Your task to perform on an android device: check google app version Image 0: 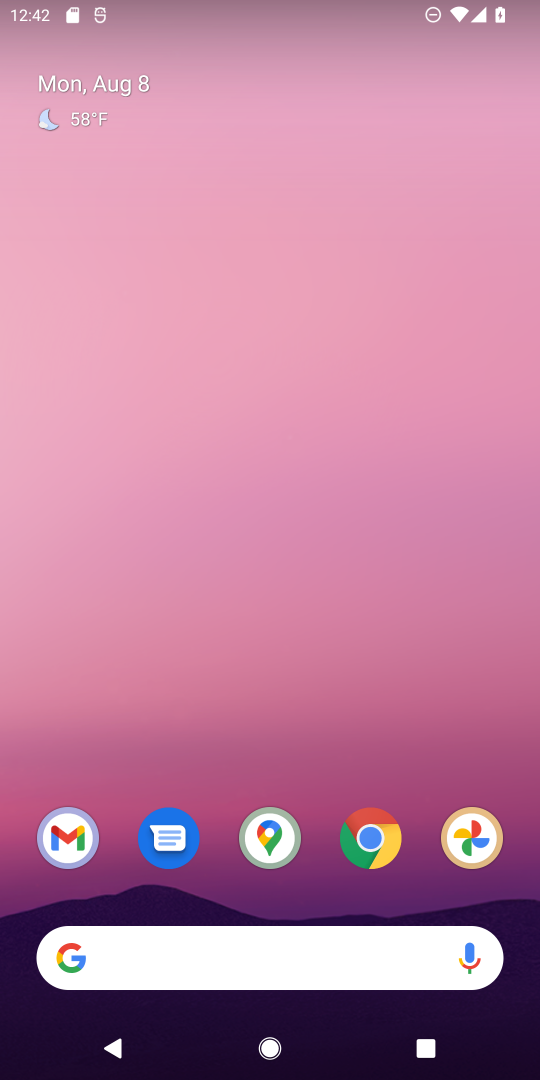
Step 0: press home button
Your task to perform on an android device: check google app version Image 1: 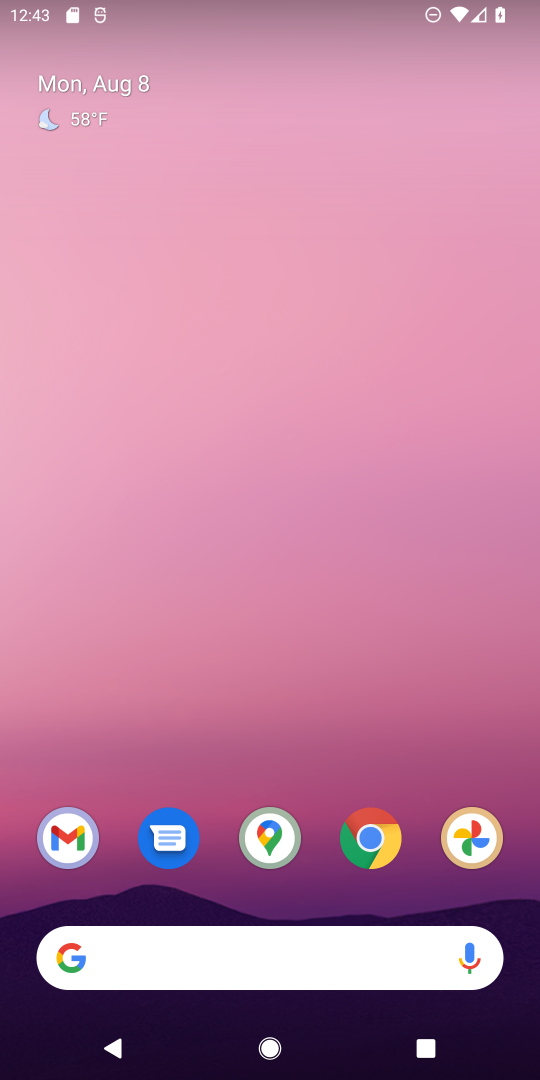
Step 1: drag from (316, 872) to (306, 2)
Your task to perform on an android device: check google app version Image 2: 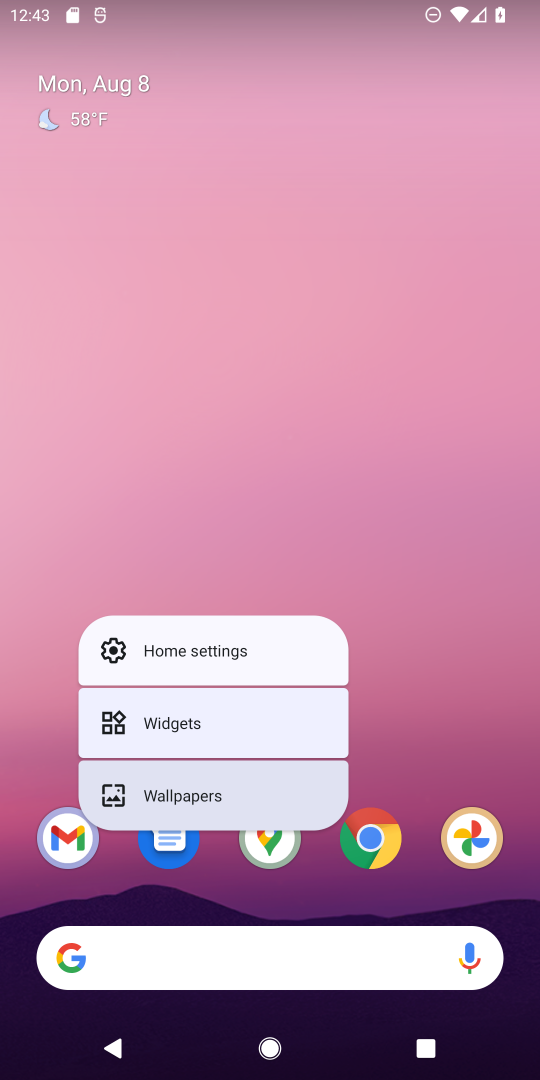
Step 2: click (458, 655)
Your task to perform on an android device: check google app version Image 3: 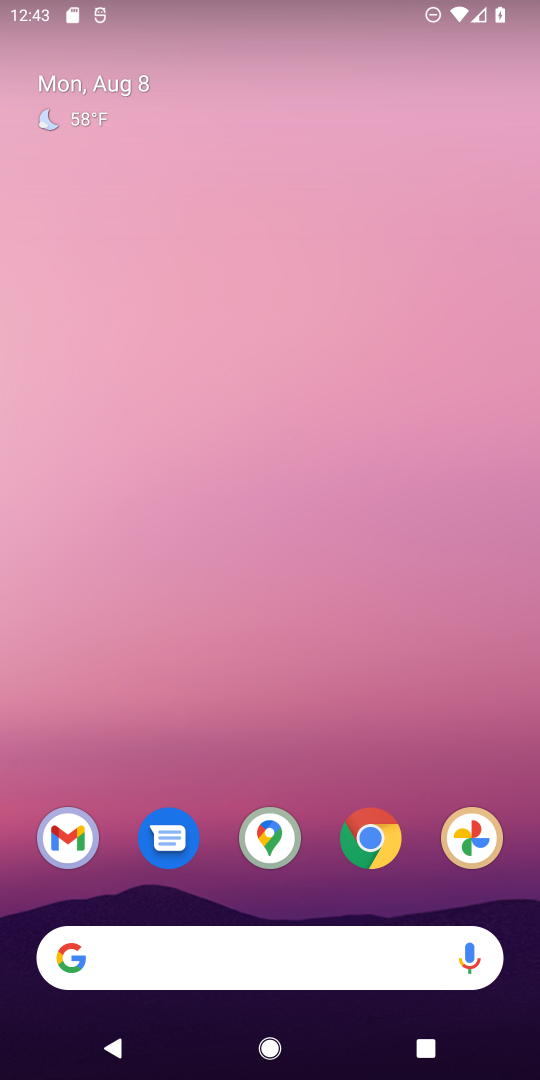
Step 3: drag from (232, 887) to (223, 276)
Your task to perform on an android device: check google app version Image 4: 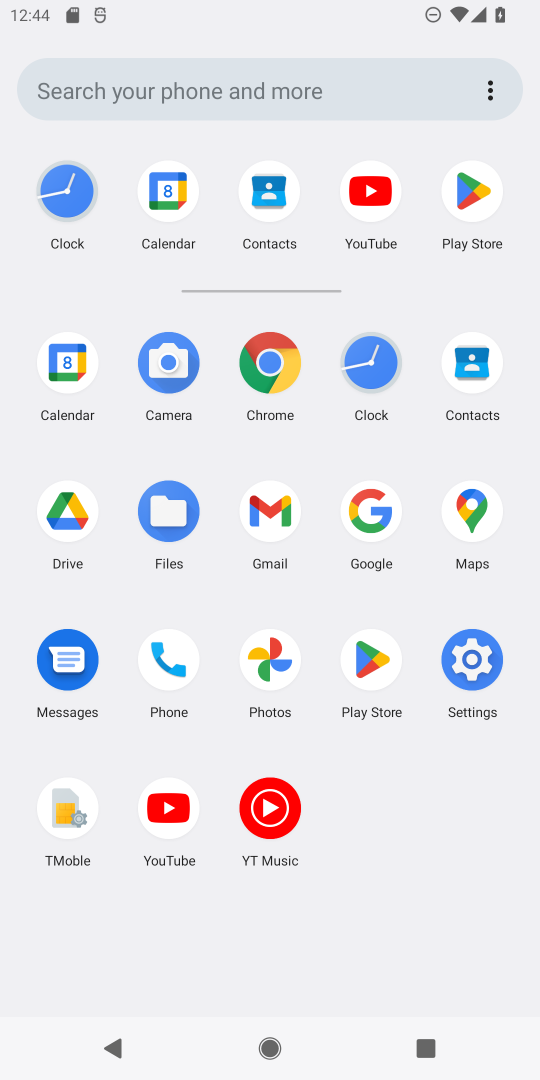
Step 4: click (384, 505)
Your task to perform on an android device: check google app version Image 5: 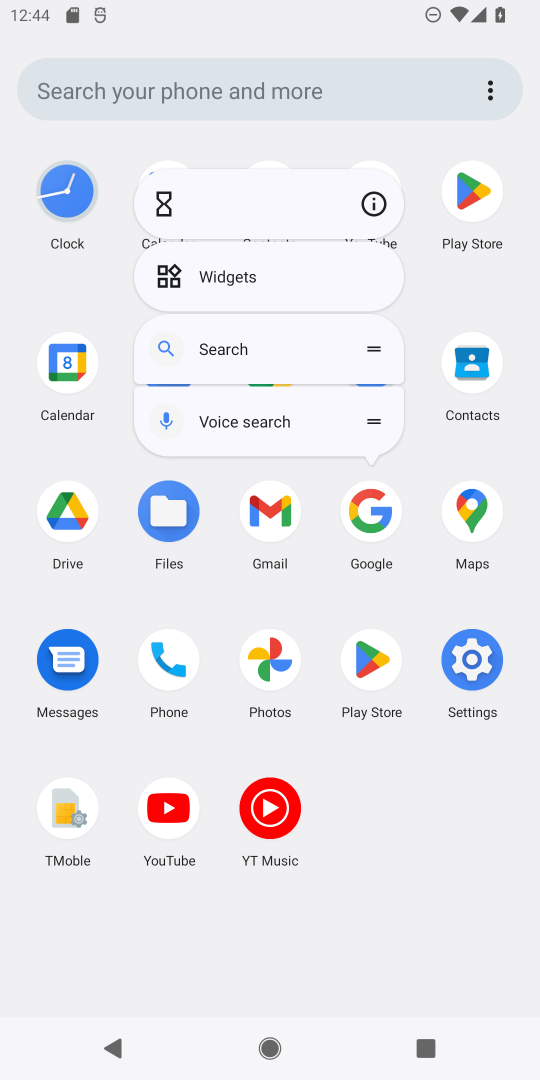
Step 5: click (382, 205)
Your task to perform on an android device: check google app version Image 6: 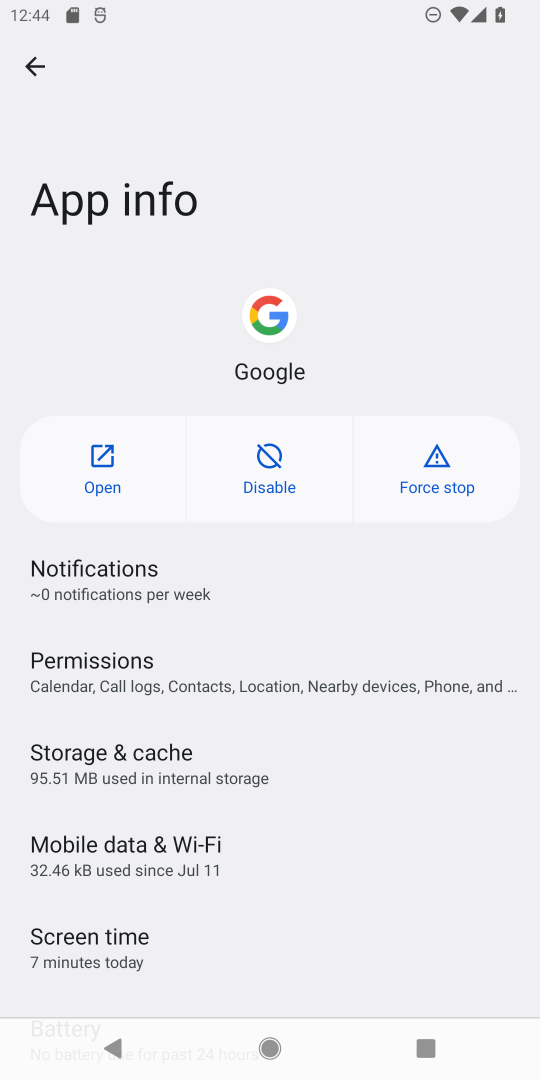
Step 6: task complete